Your task to perform on an android device: Open Google Chrome Image 0: 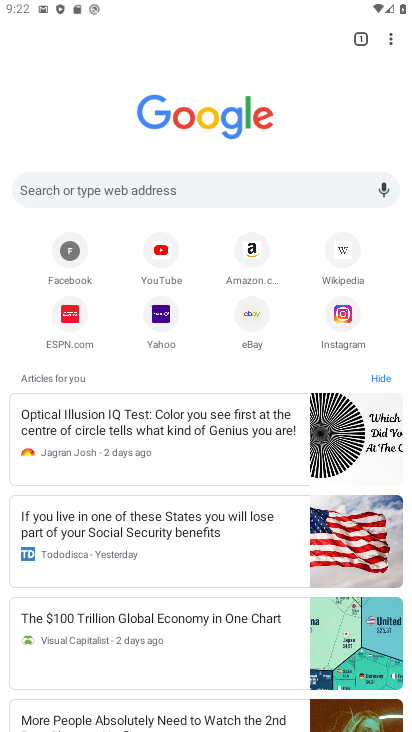
Step 0: press home button
Your task to perform on an android device: Open Google Chrome Image 1: 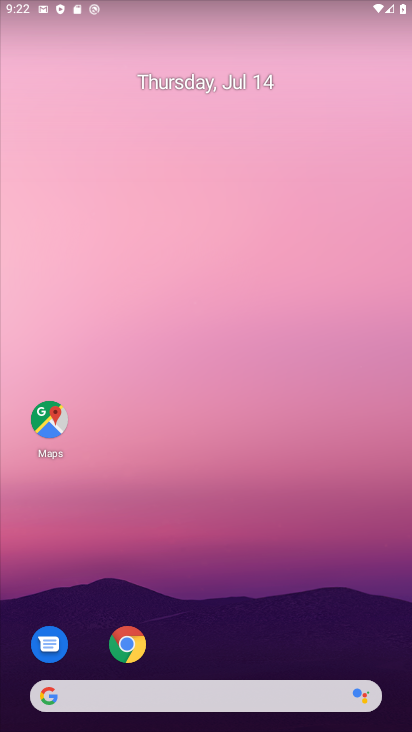
Step 1: click (129, 642)
Your task to perform on an android device: Open Google Chrome Image 2: 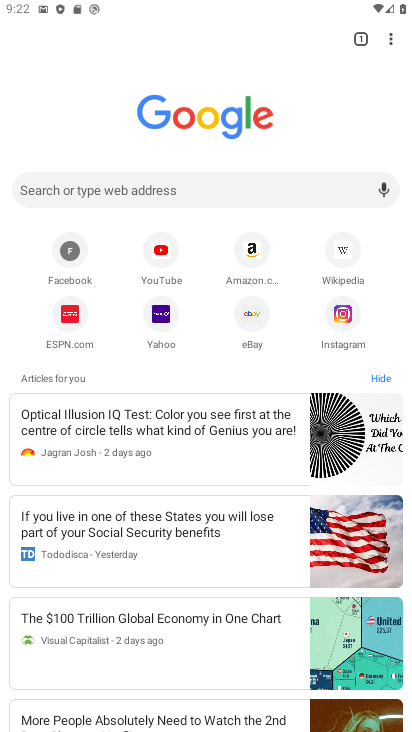
Step 2: task complete